Your task to perform on an android device: Open privacy settings Image 0: 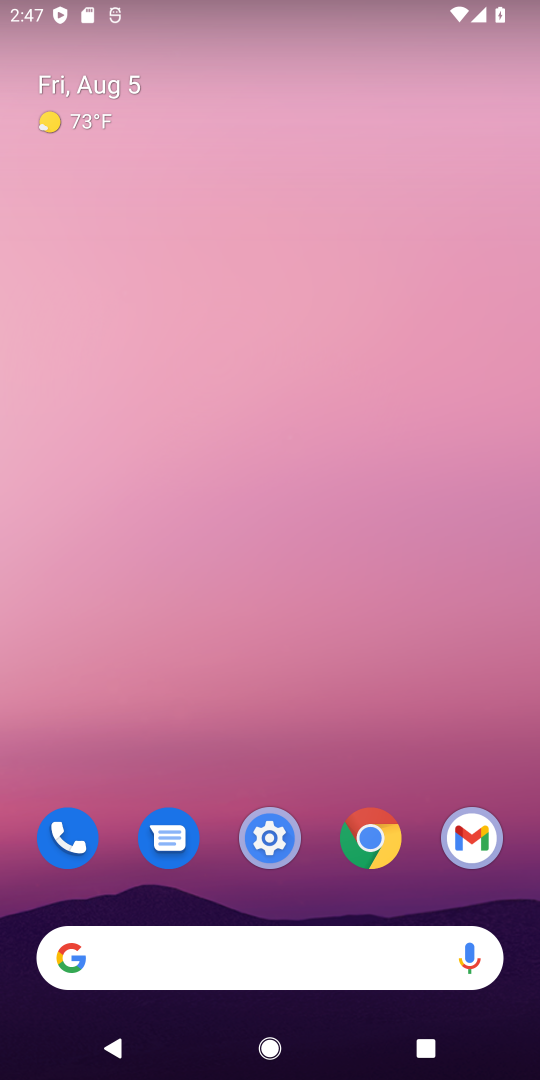
Step 0: drag from (263, 899) to (286, 151)
Your task to perform on an android device: Open privacy settings Image 1: 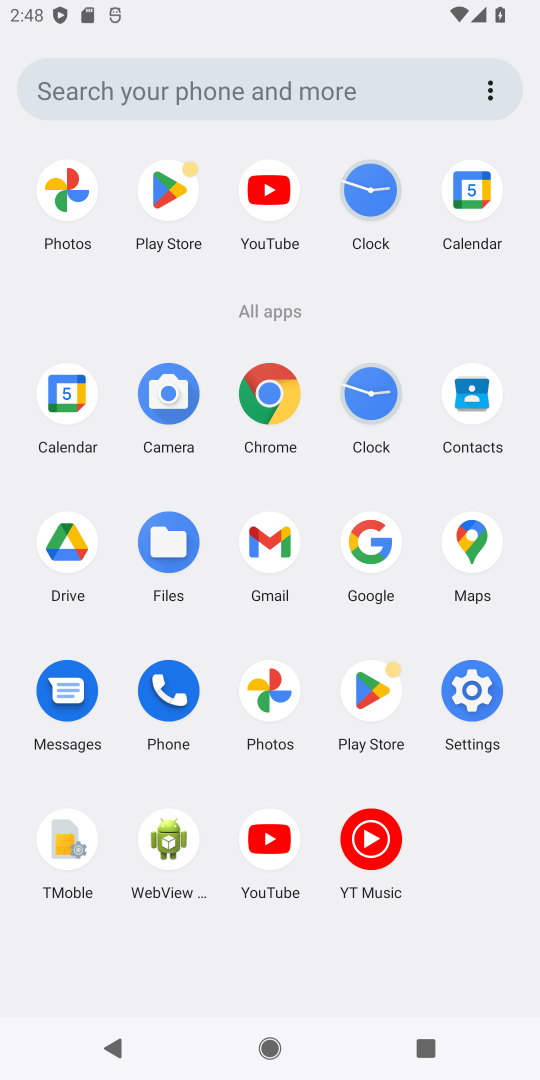
Step 1: click (262, 536)
Your task to perform on an android device: Open privacy settings Image 2: 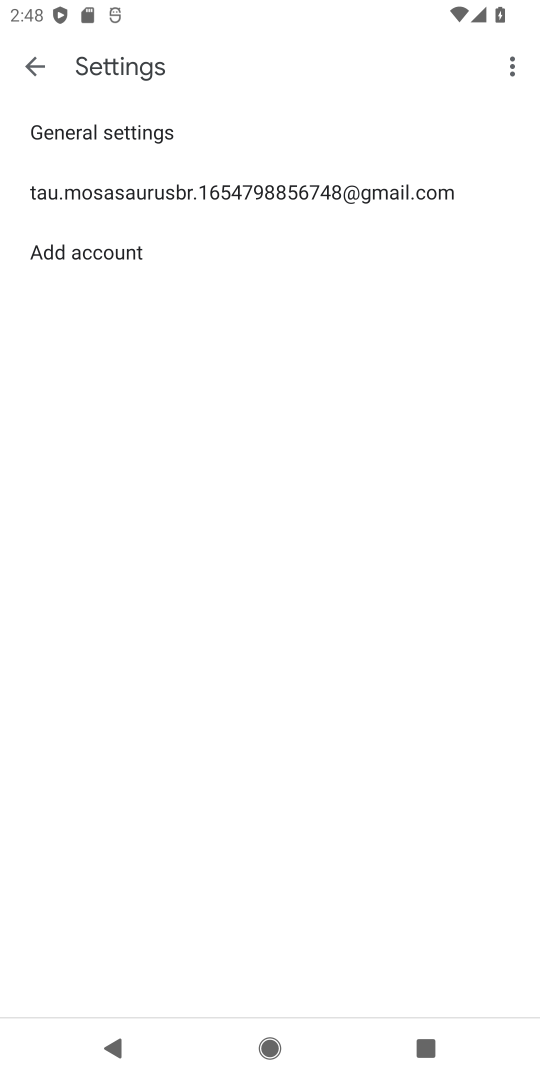
Step 2: press home button
Your task to perform on an android device: Open privacy settings Image 3: 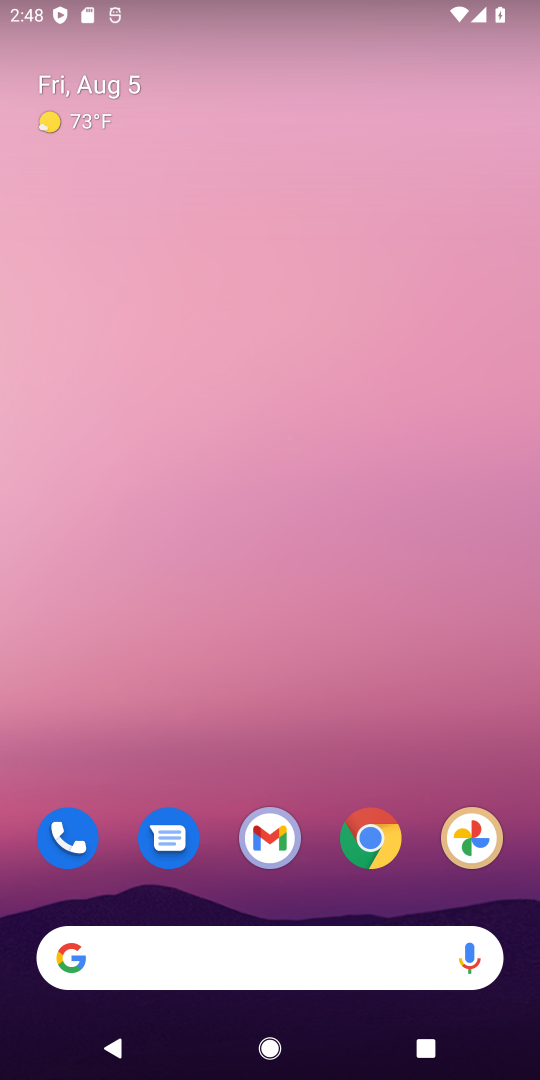
Step 3: drag from (271, 923) to (293, 273)
Your task to perform on an android device: Open privacy settings Image 4: 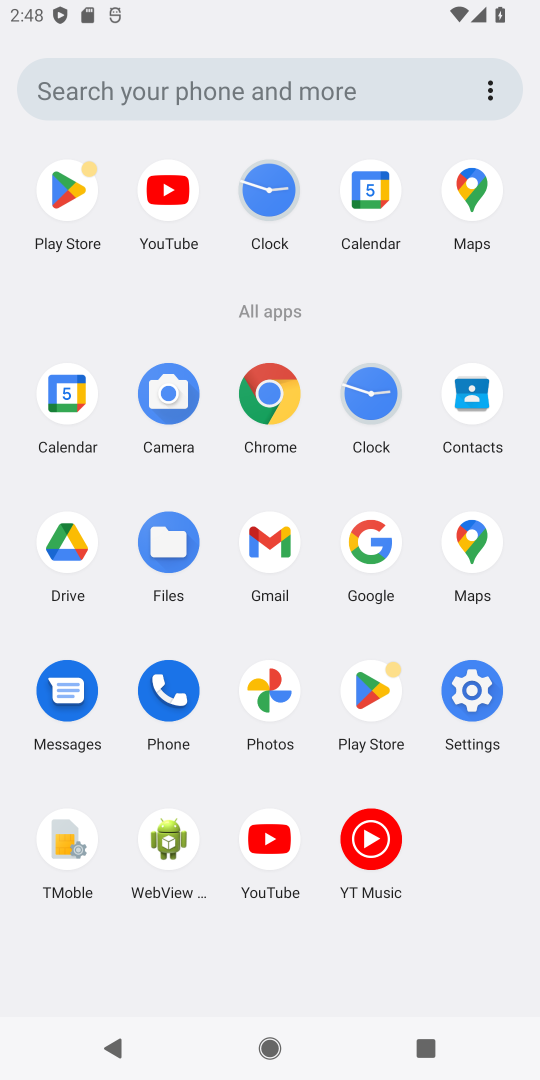
Step 4: click (450, 685)
Your task to perform on an android device: Open privacy settings Image 5: 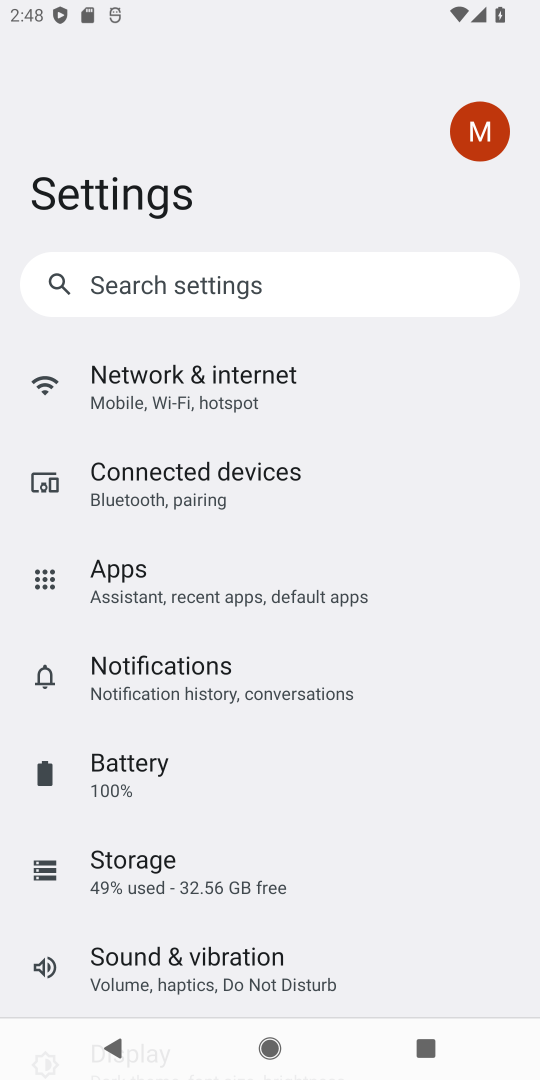
Step 5: drag from (127, 885) to (237, 265)
Your task to perform on an android device: Open privacy settings Image 6: 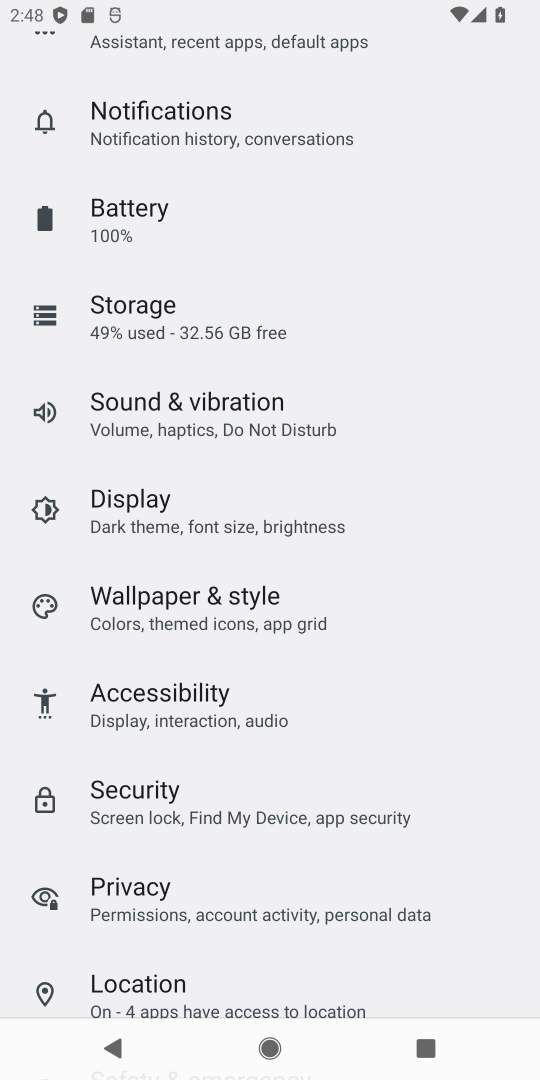
Step 6: click (144, 887)
Your task to perform on an android device: Open privacy settings Image 7: 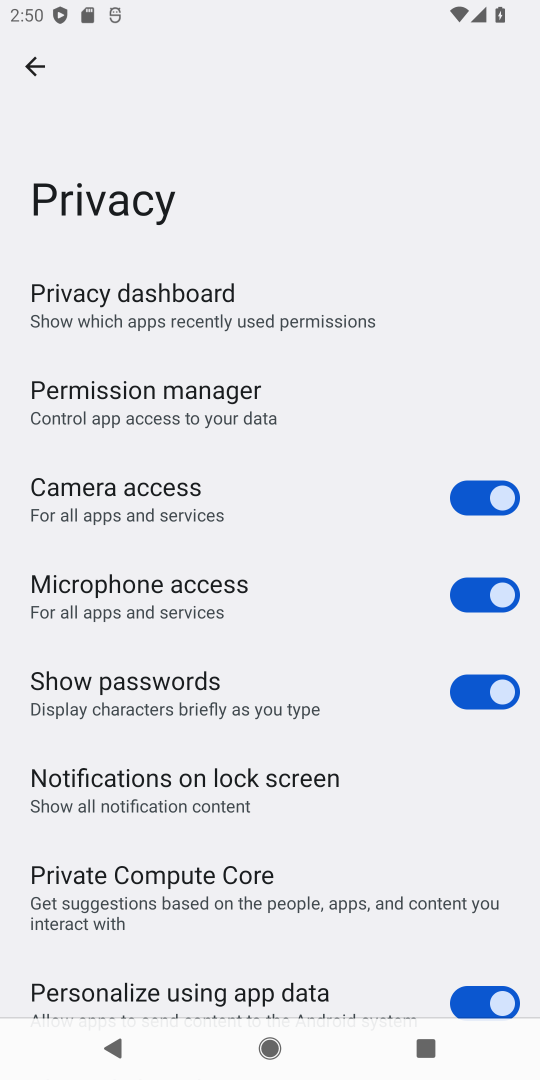
Step 7: task complete